Your task to perform on an android device: all mails in gmail Image 0: 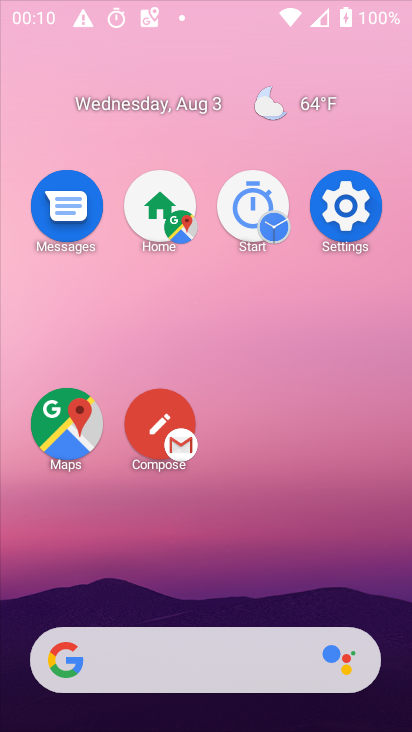
Step 0: drag from (193, 12) to (307, 30)
Your task to perform on an android device: all mails in gmail Image 1: 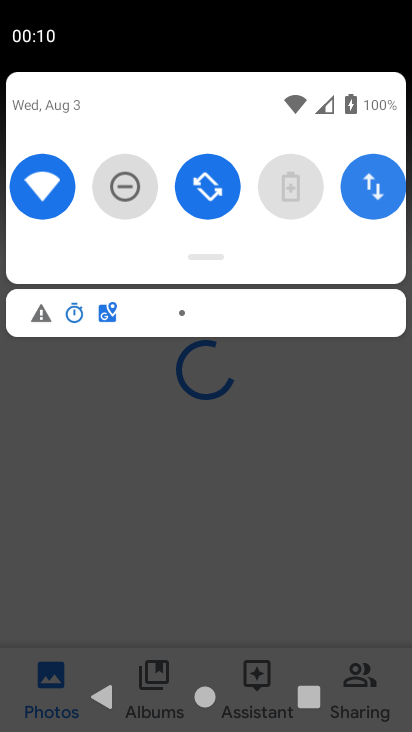
Step 1: drag from (271, 309) to (204, 179)
Your task to perform on an android device: all mails in gmail Image 2: 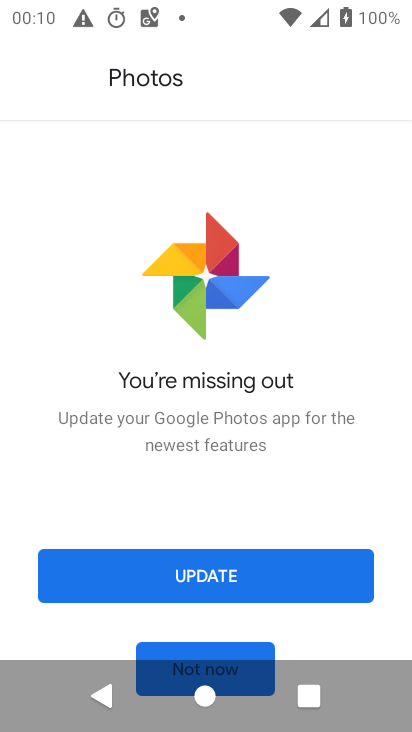
Step 2: press back button
Your task to perform on an android device: all mails in gmail Image 3: 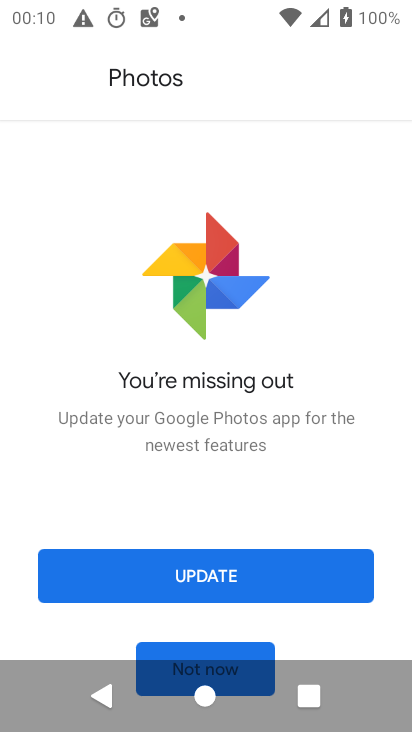
Step 3: press back button
Your task to perform on an android device: all mails in gmail Image 4: 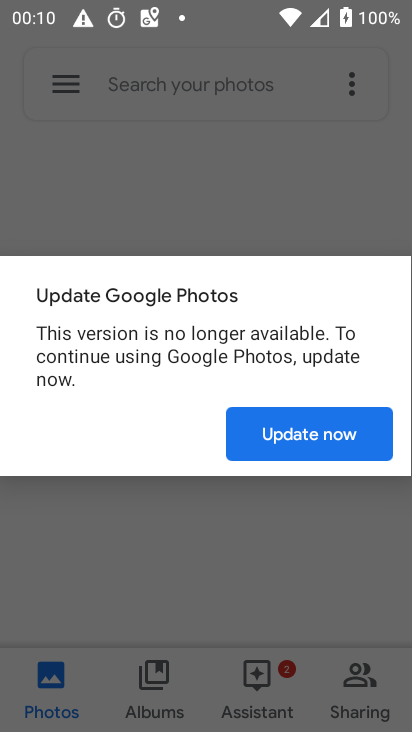
Step 4: click (203, 641)
Your task to perform on an android device: all mails in gmail Image 5: 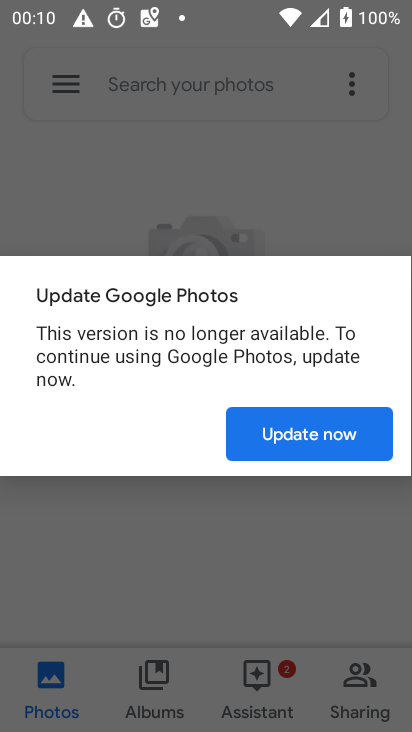
Step 5: click (253, 189)
Your task to perform on an android device: all mails in gmail Image 6: 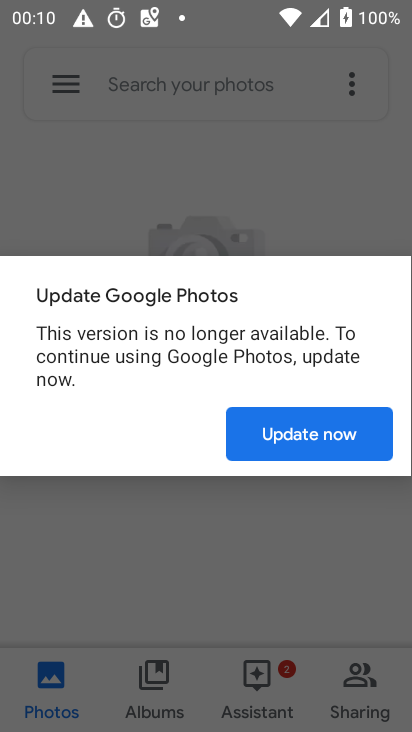
Step 6: click (264, 190)
Your task to perform on an android device: all mails in gmail Image 7: 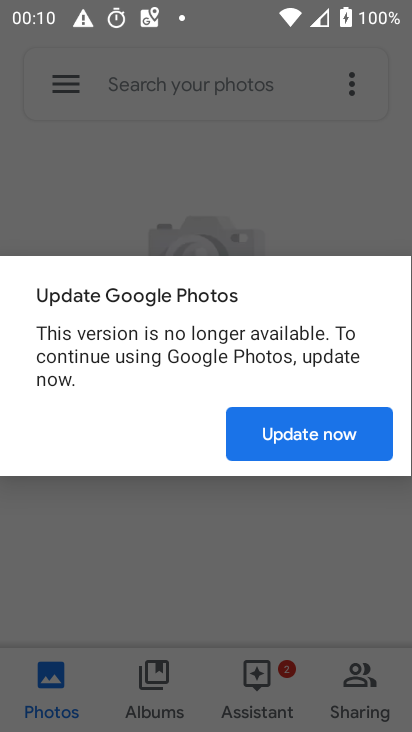
Step 7: press back button
Your task to perform on an android device: all mails in gmail Image 8: 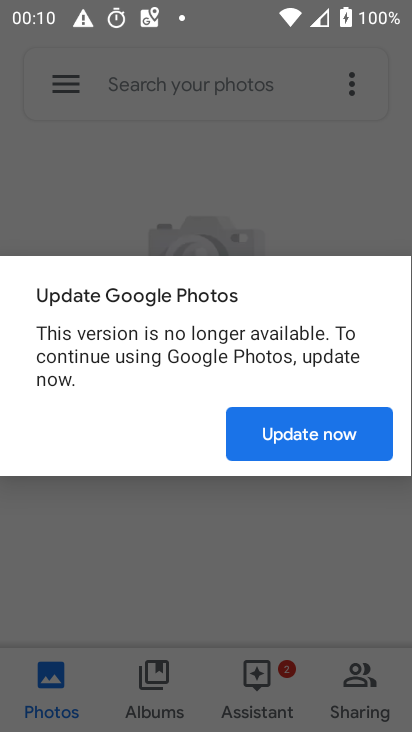
Step 8: press home button
Your task to perform on an android device: all mails in gmail Image 9: 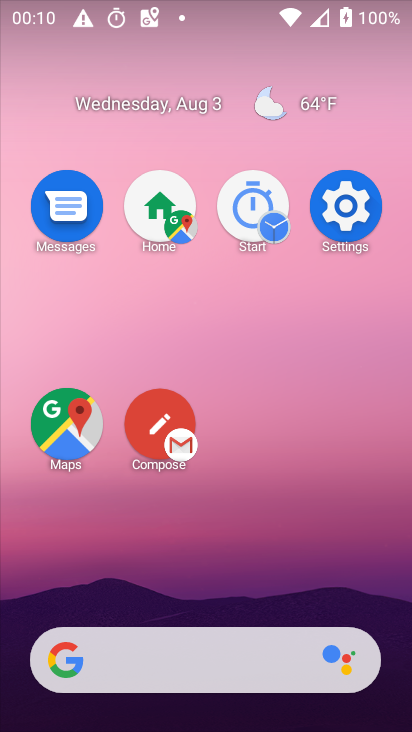
Step 9: drag from (299, 571) to (285, 113)
Your task to perform on an android device: all mails in gmail Image 10: 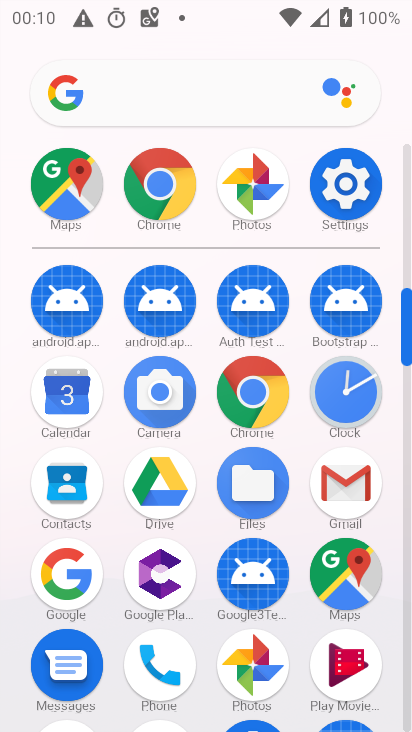
Step 10: click (334, 491)
Your task to perform on an android device: all mails in gmail Image 11: 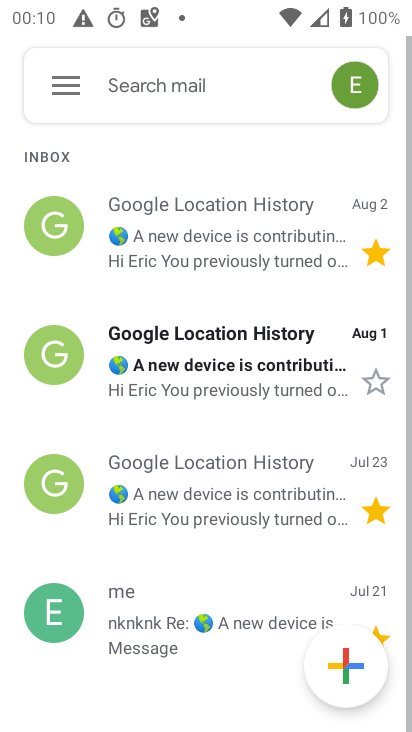
Step 11: click (75, 85)
Your task to perform on an android device: all mails in gmail Image 12: 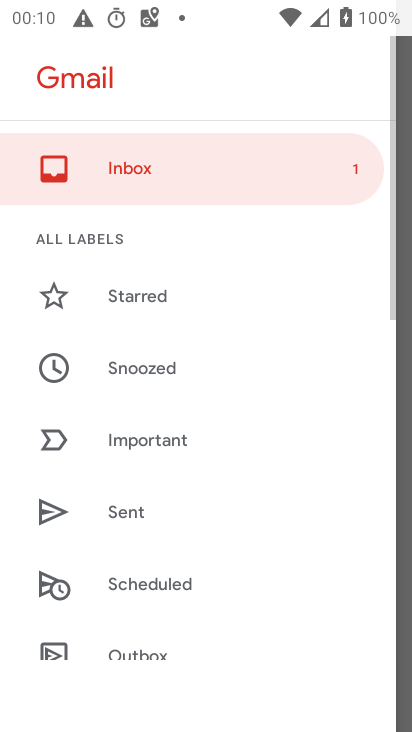
Step 12: drag from (149, 543) to (143, 266)
Your task to perform on an android device: all mails in gmail Image 13: 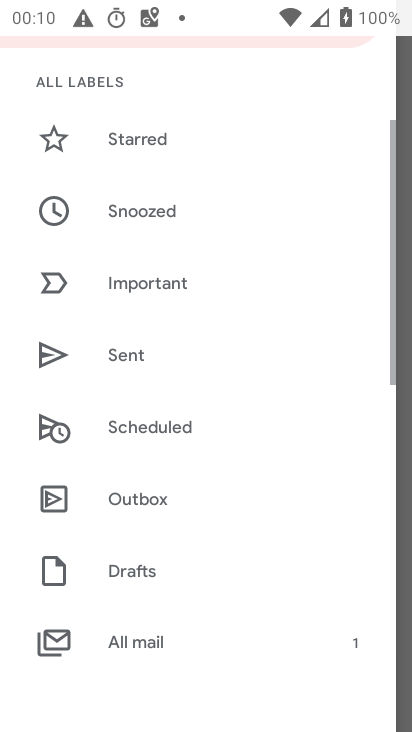
Step 13: drag from (263, 637) to (238, 275)
Your task to perform on an android device: all mails in gmail Image 14: 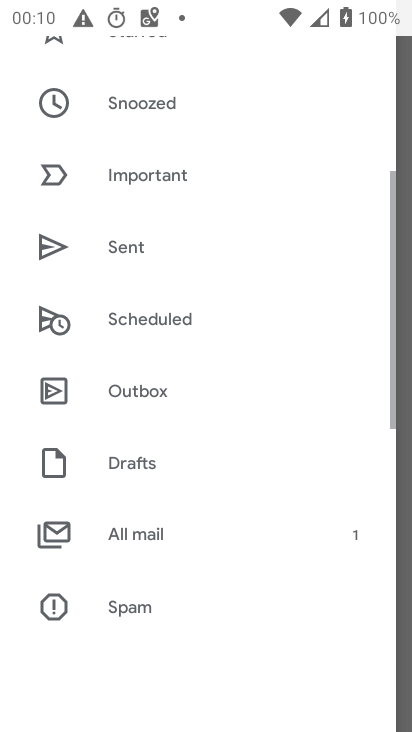
Step 14: click (158, 527)
Your task to perform on an android device: all mails in gmail Image 15: 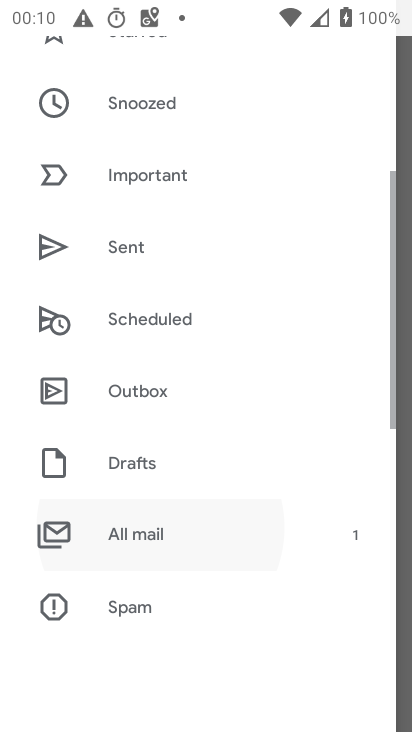
Step 15: click (158, 527)
Your task to perform on an android device: all mails in gmail Image 16: 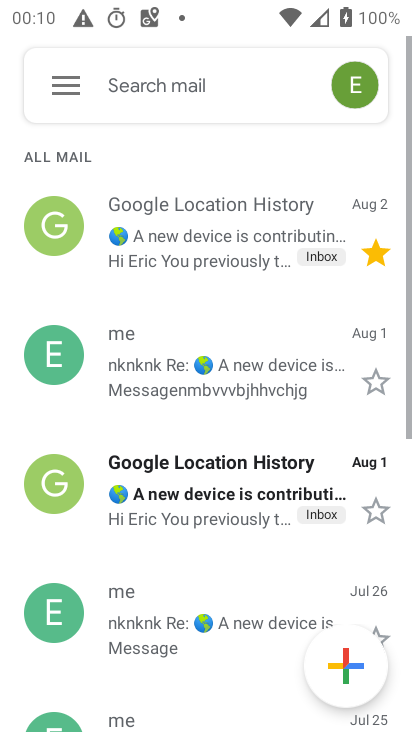
Step 16: task complete